Your task to perform on an android device: clear history in the chrome app Image 0: 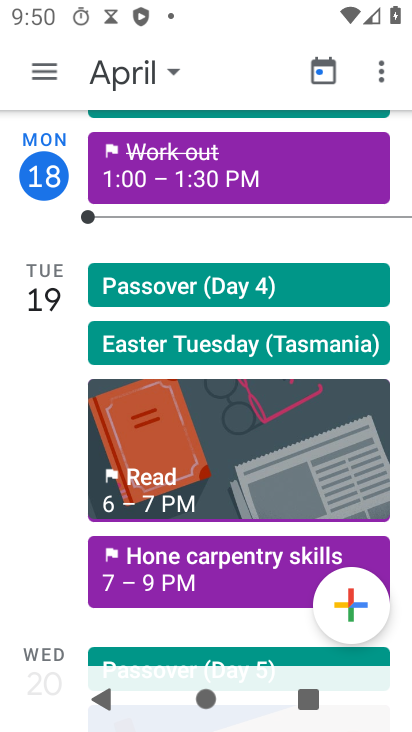
Step 0: press back button
Your task to perform on an android device: clear history in the chrome app Image 1: 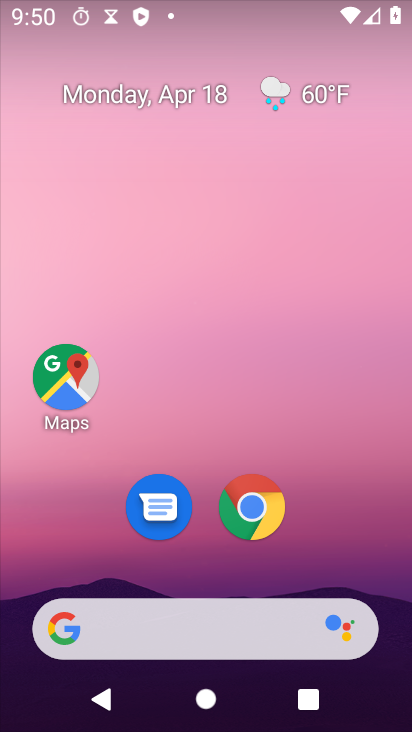
Step 1: click (259, 499)
Your task to perform on an android device: clear history in the chrome app Image 2: 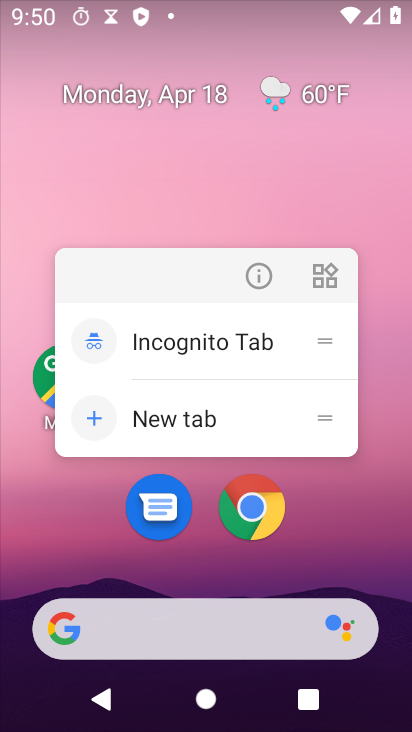
Step 2: click (260, 498)
Your task to perform on an android device: clear history in the chrome app Image 3: 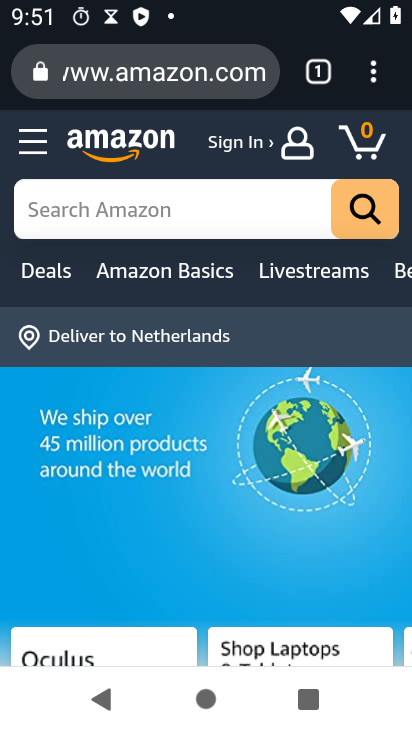
Step 3: click (377, 71)
Your task to perform on an android device: clear history in the chrome app Image 4: 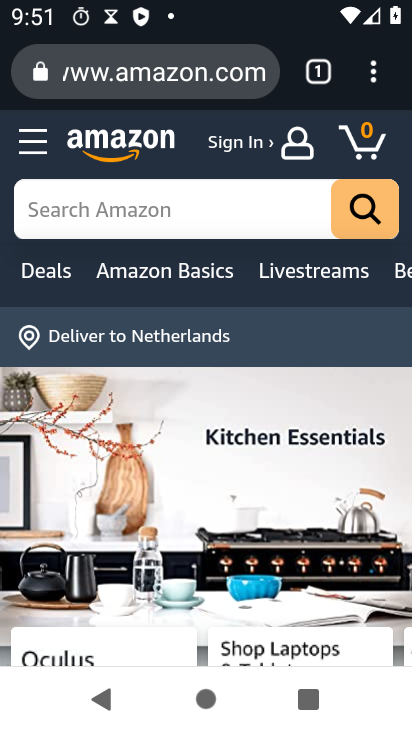
Step 4: click (379, 71)
Your task to perform on an android device: clear history in the chrome app Image 5: 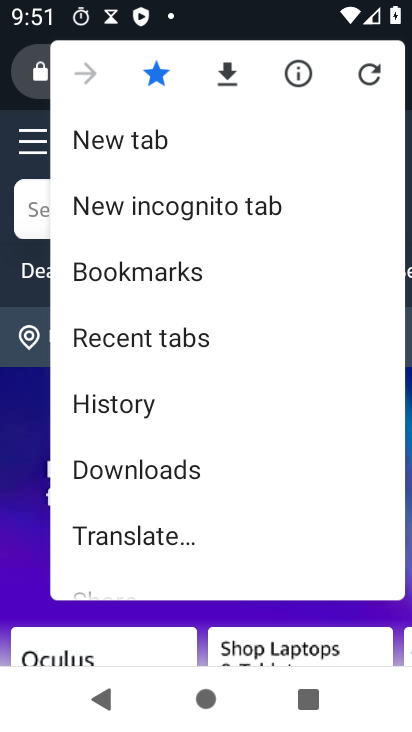
Step 5: click (225, 418)
Your task to perform on an android device: clear history in the chrome app Image 6: 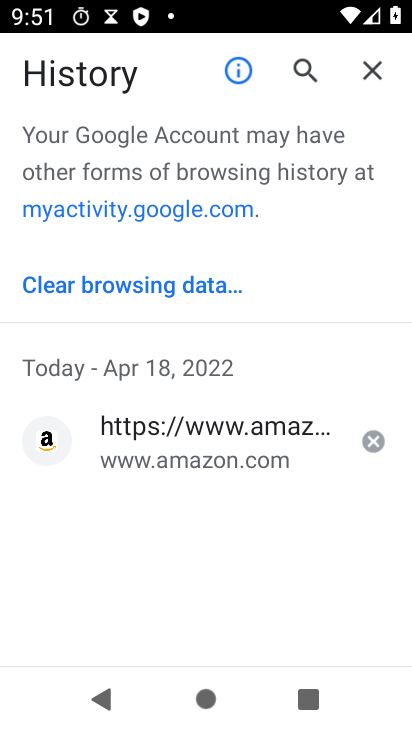
Step 6: click (185, 287)
Your task to perform on an android device: clear history in the chrome app Image 7: 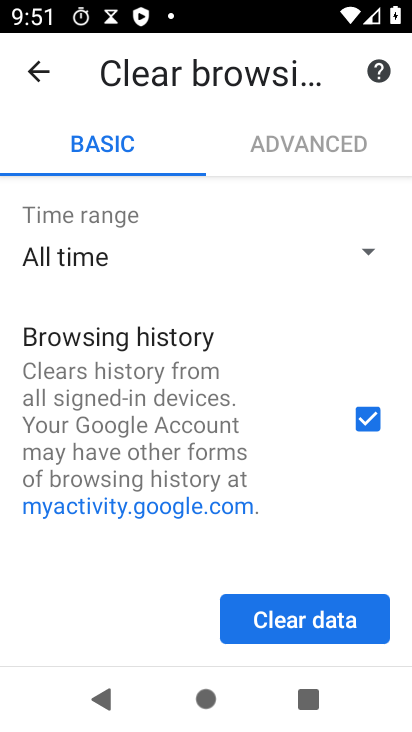
Step 7: click (317, 616)
Your task to perform on an android device: clear history in the chrome app Image 8: 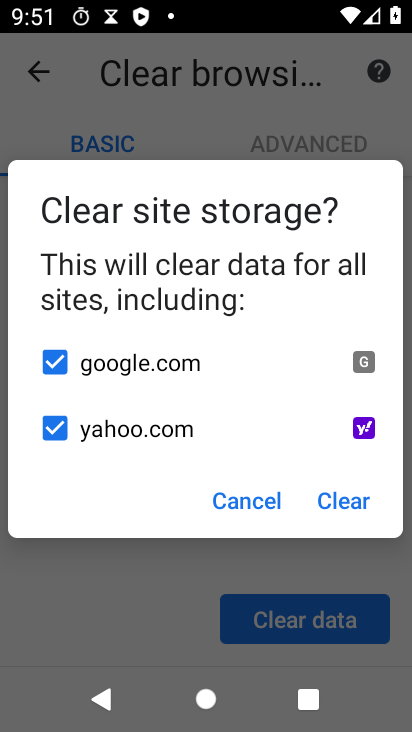
Step 8: click (351, 505)
Your task to perform on an android device: clear history in the chrome app Image 9: 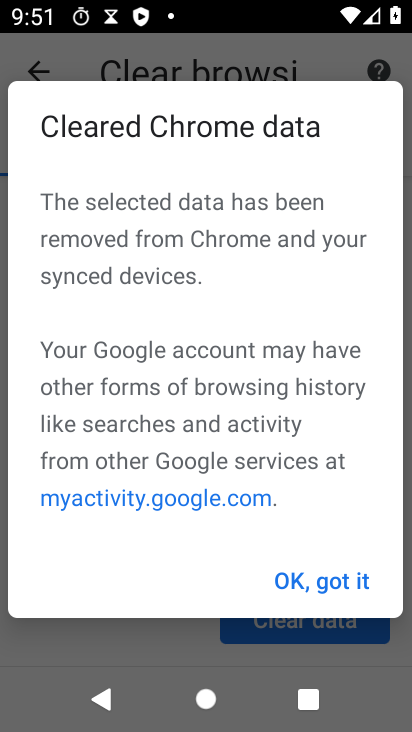
Step 9: task complete